Your task to perform on an android device: What's the weather? Image 0: 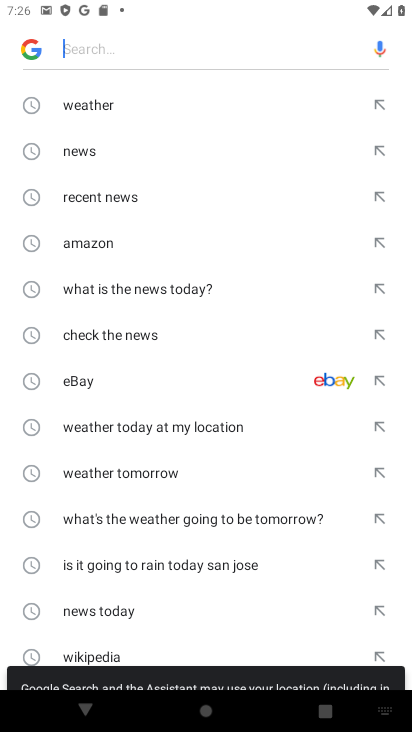
Step 0: press home button
Your task to perform on an android device: What's the weather? Image 1: 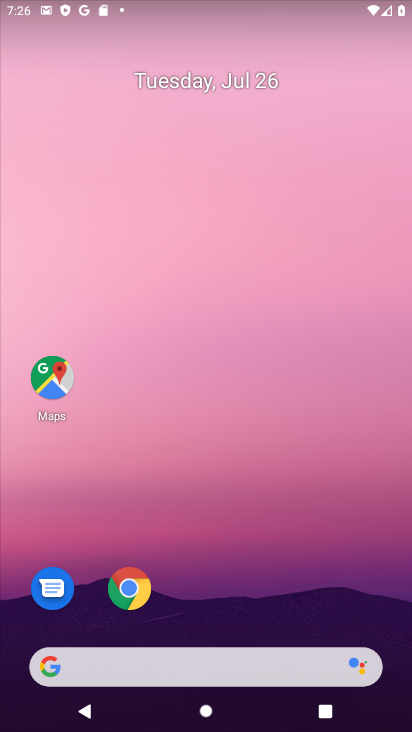
Step 1: drag from (160, 638) to (173, 198)
Your task to perform on an android device: What's the weather? Image 2: 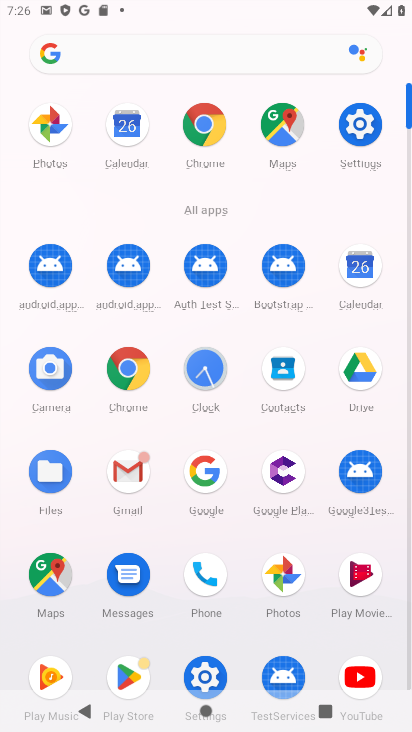
Step 2: click (213, 477)
Your task to perform on an android device: What's the weather? Image 3: 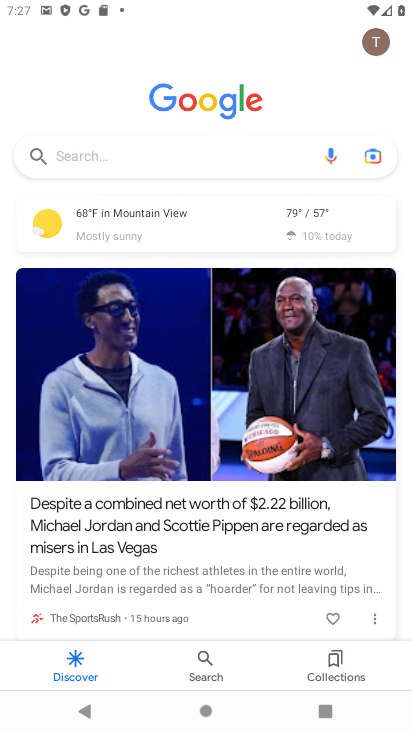
Step 3: click (194, 162)
Your task to perform on an android device: What's the weather? Image 4: 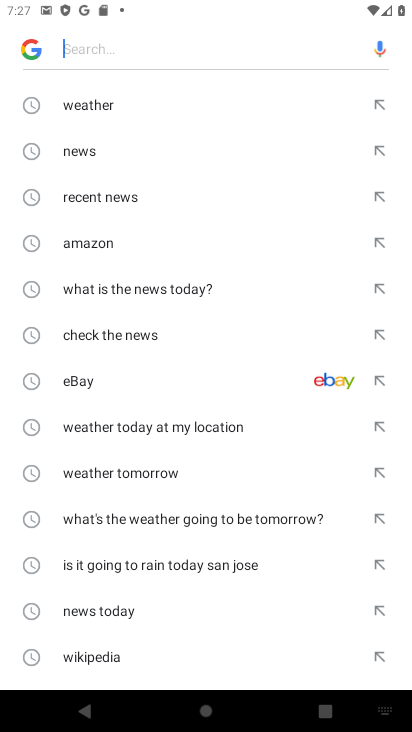
Step 4: click (125, 110)
Your task to perform on an android device: What's the weather? Image 5: 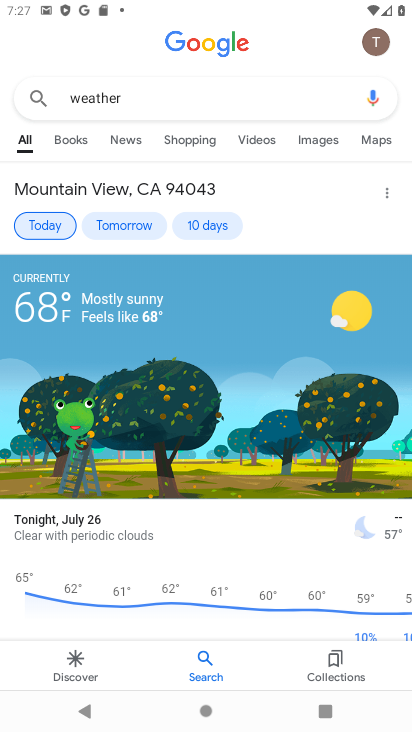
Step 5: task complete